Your task to perform on an android device: Set the phone to "Do not disturb". Image 0: 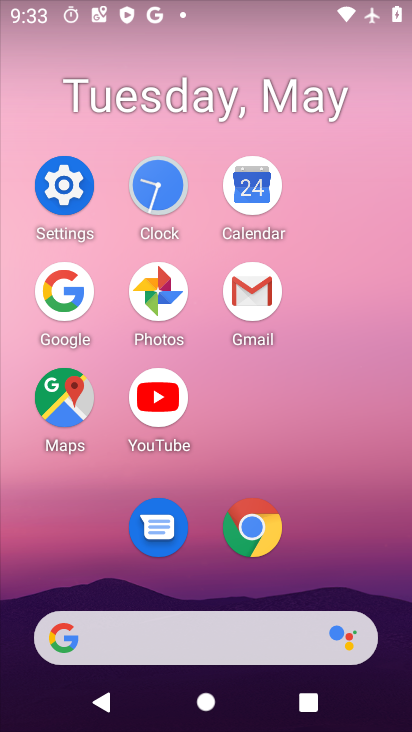
Step 0: click (73, 185)
Your task to perform on an android device: Set the phone to "Do not disturb". Image 1: 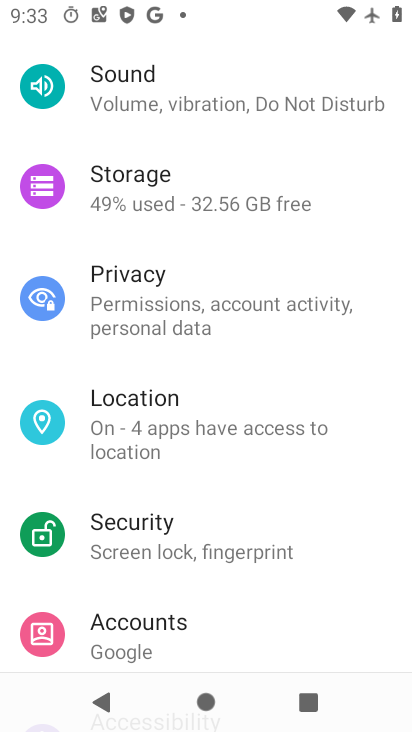
Step 1: click (202, 98)
Your task to perform on an android device: Set the phone to "Do not disturb". Image 2: 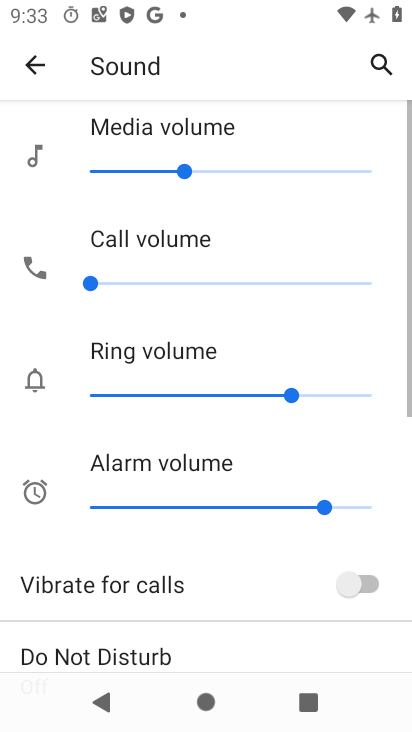
Step 2: drag from (176, 564) to (210, 146)
Your task to perform on an android device: Set the phone to "Do not disturb". Image 3: 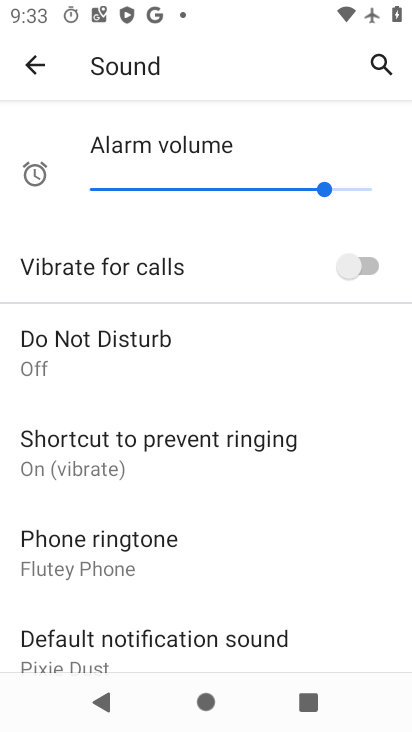
Step 3: click (164, 338)
Your task to perform on an android device: Set the phone to "Do not disturb". Image 4: 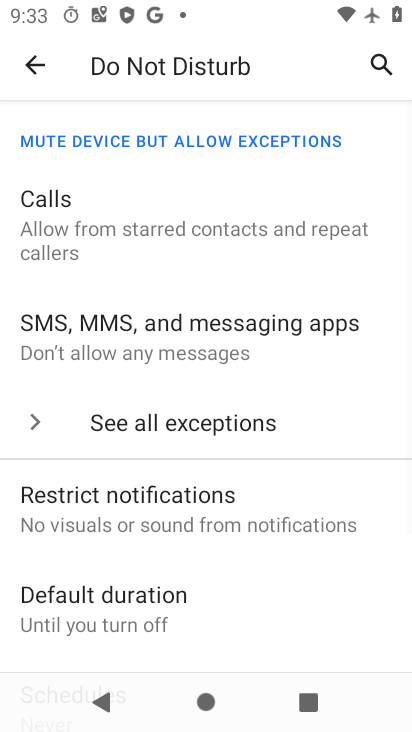
Step 4: drag from (140, 527) to (170, 164)
Your task to perform on an android device: Set the phone to "Do not disturb". Image 5: 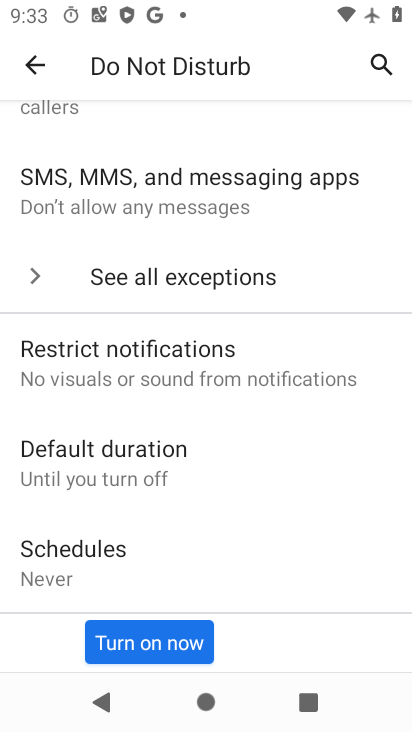
Step 5: click (164, 631)
Your task to perform on an android device: Set the phone to "Do not disturb". Image 6: 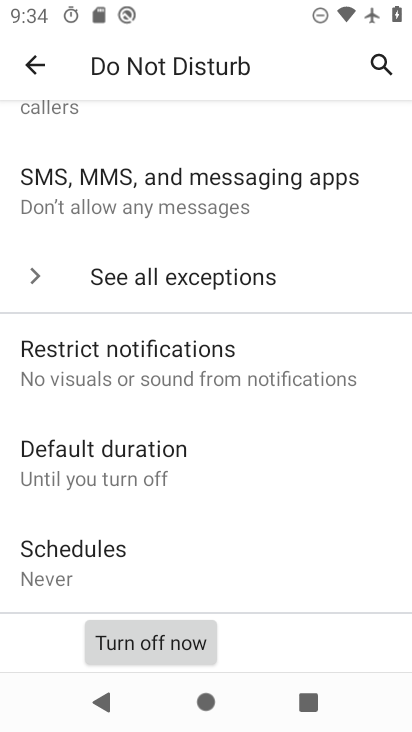
Step 6: task complete